Your task to perform on an android device: toggle translation in the chrome app Image 0: 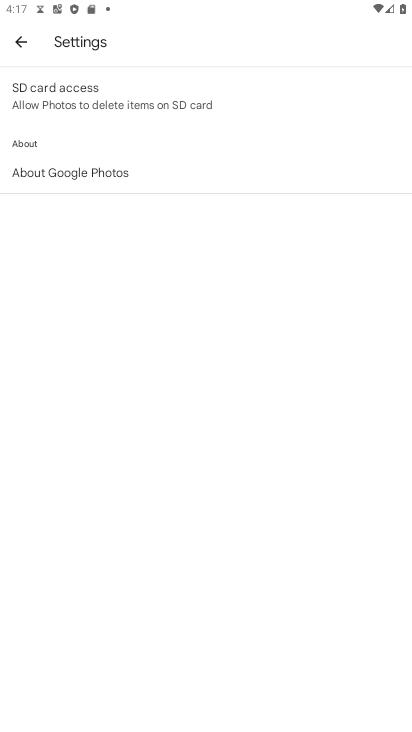
Step 0: press home button
Your task to perform on an android device: toggle translation in the chrome app Image 1: 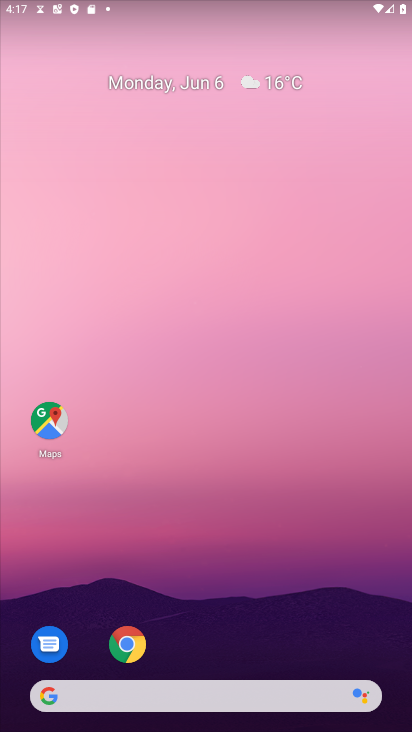
Step 1: click (149, 656)
Your task to perform on an android device: toggle translation in the chrome app Image 2: 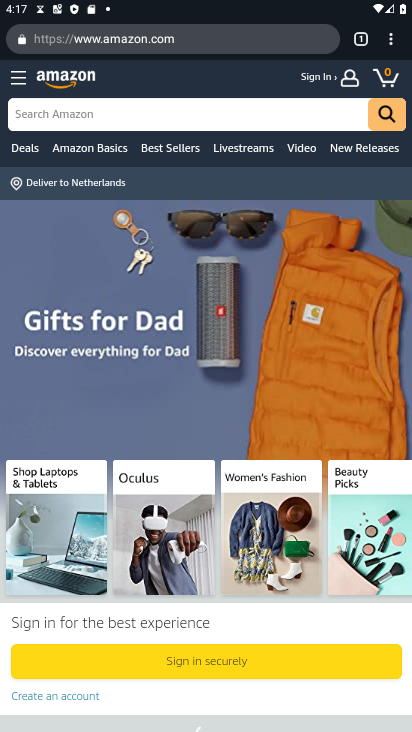
Step 2: click (390, 40)
Your task to perform on an android device: toggle translation in the chrome app Image 3: 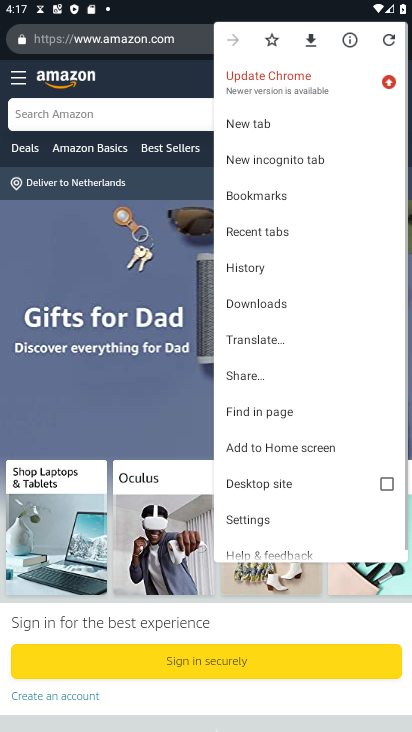
Step 3: click (260, 520)
Your task to perform on an android device: toggle translation in the chrome app Image 4: 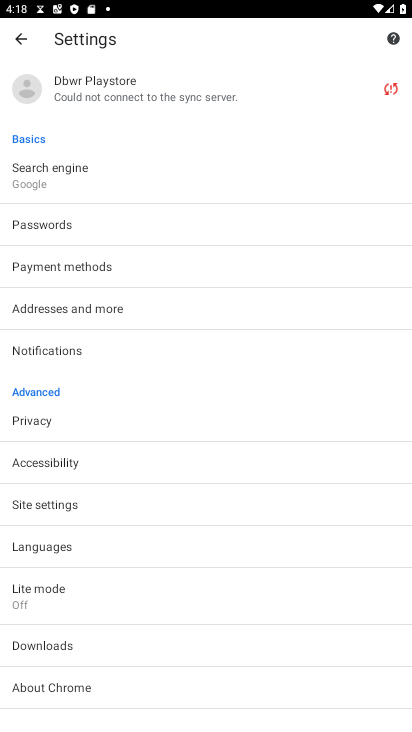
Step 4: click (73, 555)
Your task to perform on an android device: toggle translation in the chrome app Image 5: 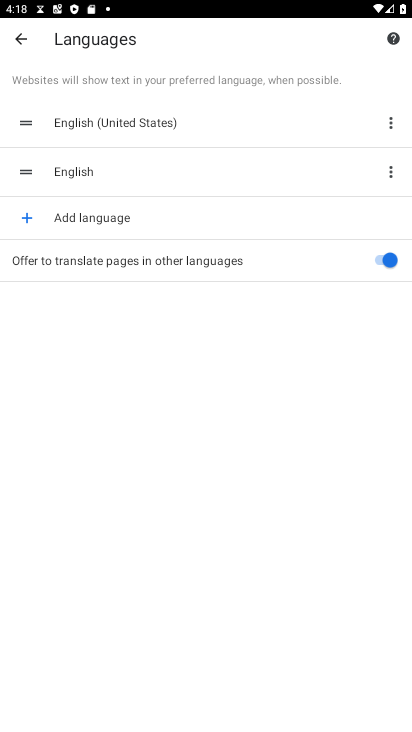
Step 5: click (392, 260)
Your task to perform on an android device: toggle translation in the chrome app Image 6: 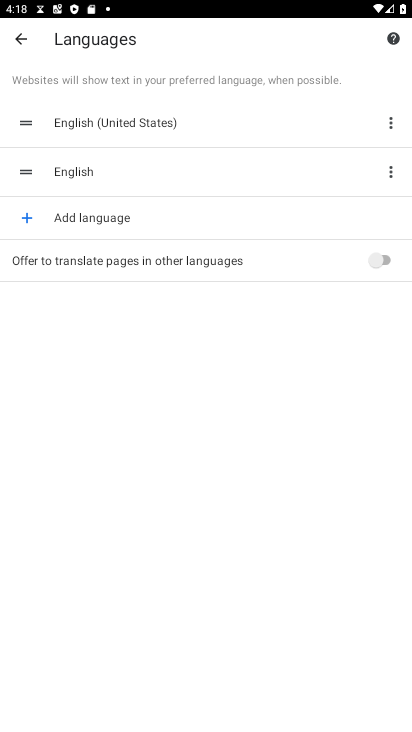
Step 6: task complete